Your task to perform on an android device: turn off notifications settings in the gmail app Image 0: 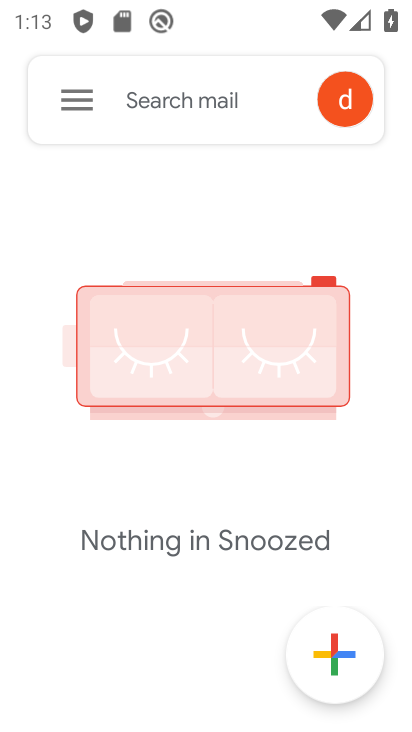
Step 0: press home button
Your task to perform on an android device: turn off notifications settings in the gmail app Image 1: 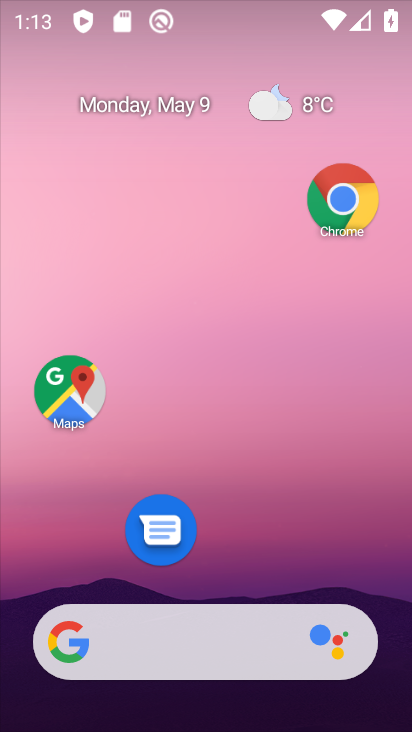
Step 1: drag from (256, 545) to (291, 58)
Your task to perform on an android device: turn off notifications settings in the gmail app Image 2: 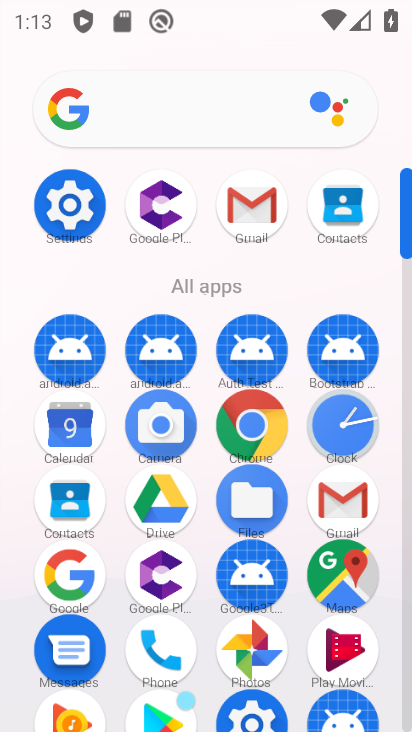
Step 2: click (247, 201)
Your task to perform on an android device: turn off notifications settings in the gmail app Image 3: 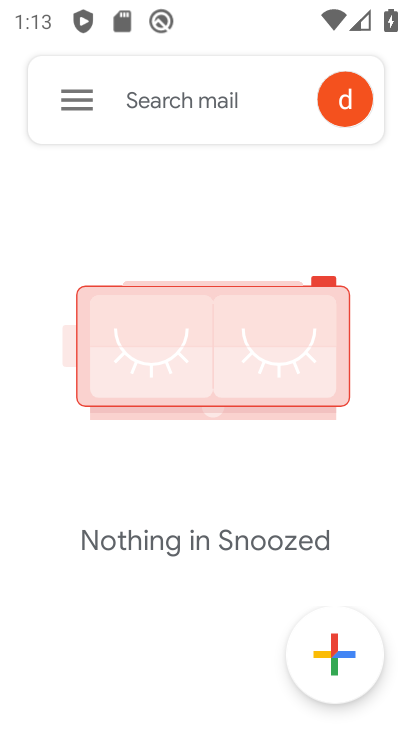
Step 3: click (79, 101)
Your task to perform on an android device: turn off notifications settings in the gmail app Image 4: 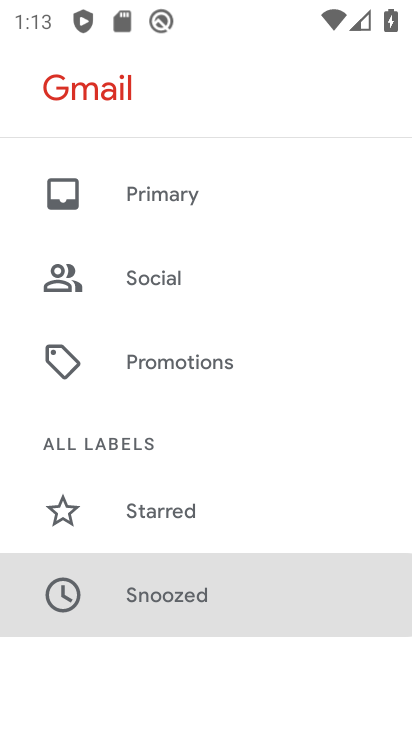
Step 4: drag from (229, 481) to (230, 70)
Your task to perform on an android device: turn off notifications settings in the gmail app Image 5: 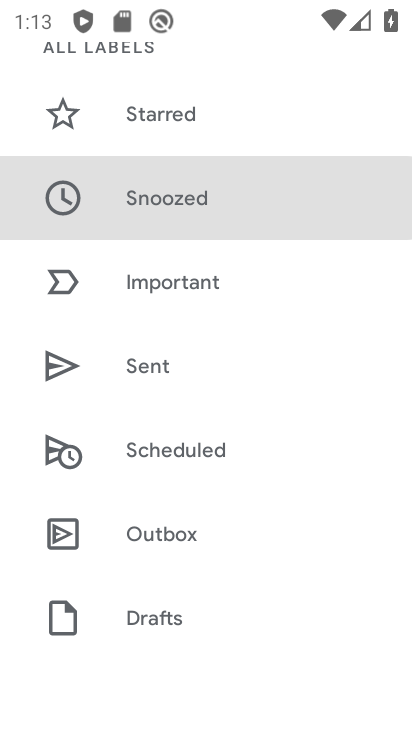
Step 5: drag from (185, 533) to (207, 129)
Your task to perform on an android device: turn off notifications settings in the gmail app Image 6: 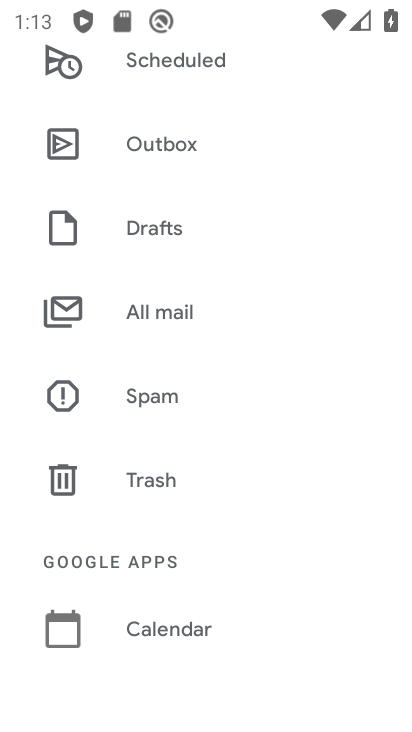
Step 6: drag from (223, 543) to (217, 100)
Your task to perform on an android device: turn off notifications settings in the gmail app Image 7: 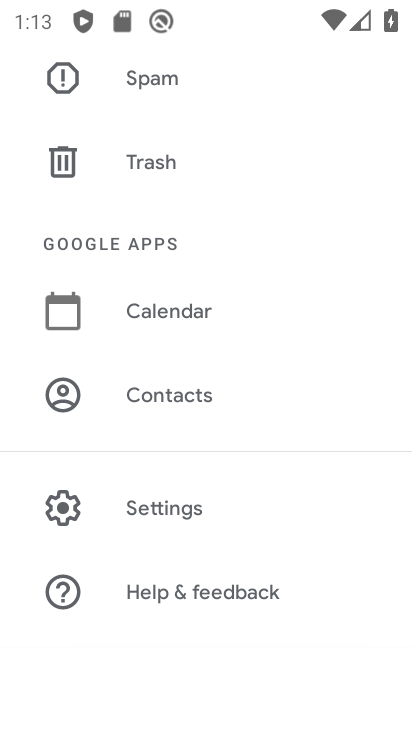
Step 7: click (182, 520)
Your task to perform on an android device: turn off notifications settings in the gmail app Image 8: 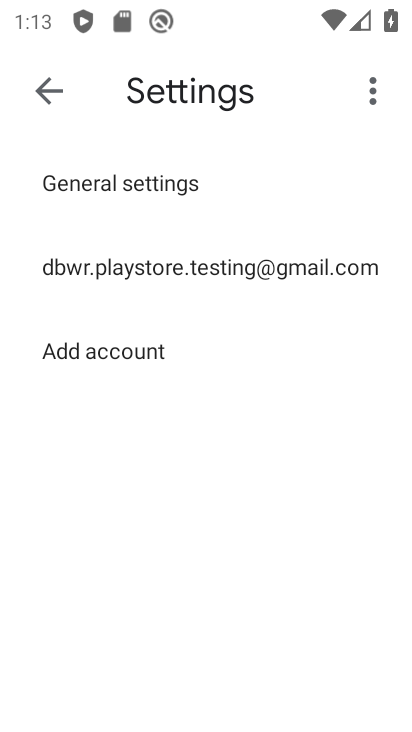
Step 8: click (109, 266)
Your task to perform on an android device: turn off notifications settings in the gmail app Image 9: 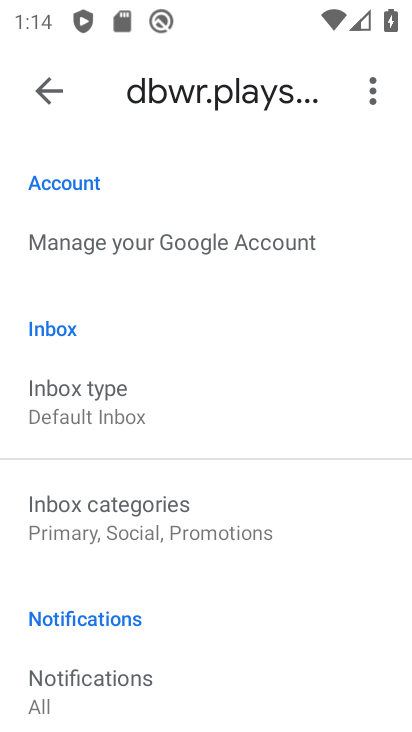
Step 9: drag from (129, 663) to (139, 401)
Your task to perform on an android device: turn off notifications settings in the gmail app Image 10: 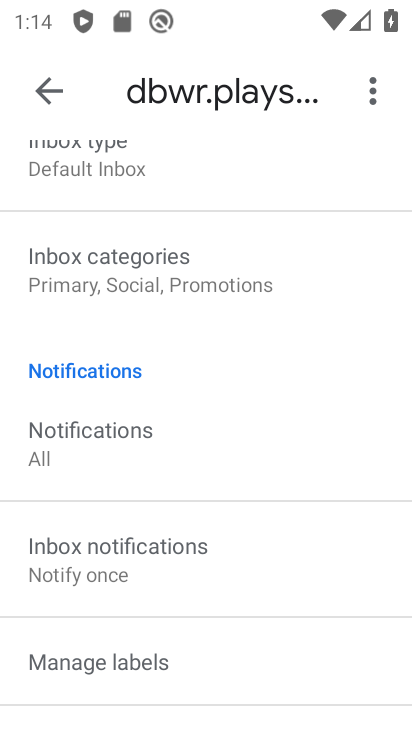
Step 10: click (47, 436)
Your task to perform on an android device: turn off notifications settings in the gmail app Image 11: 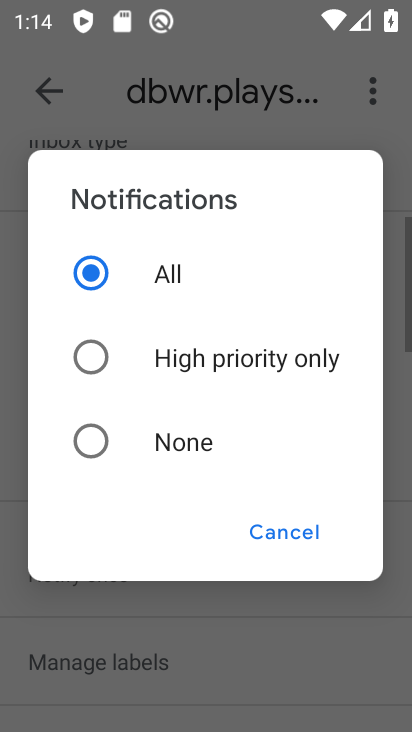
Step 11: click (92, 441)
Your task to perform on an android device: turn off notifications settings in the gmail app Image 12: 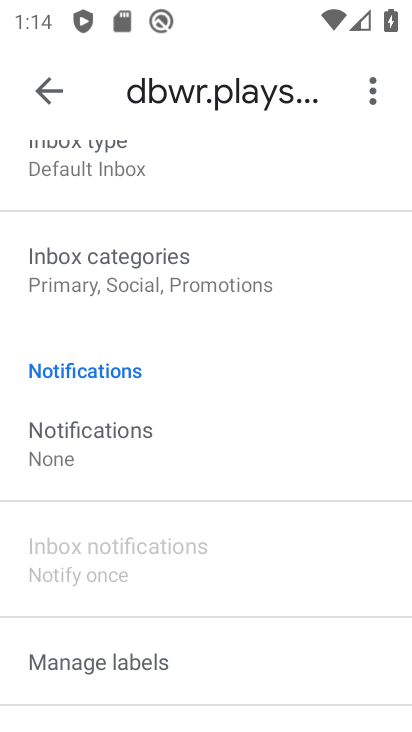
Step 12: task complete